Your task to perform on an android device: Open Chrome and go to settings Image 0: 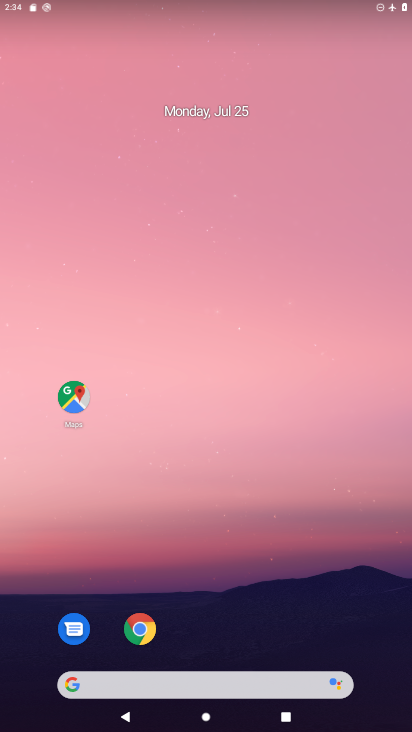
Step 0: drag from (287, 590) to (183, 0)
Your task to perform on an android device: Open Chrome and go to settings Image 1: 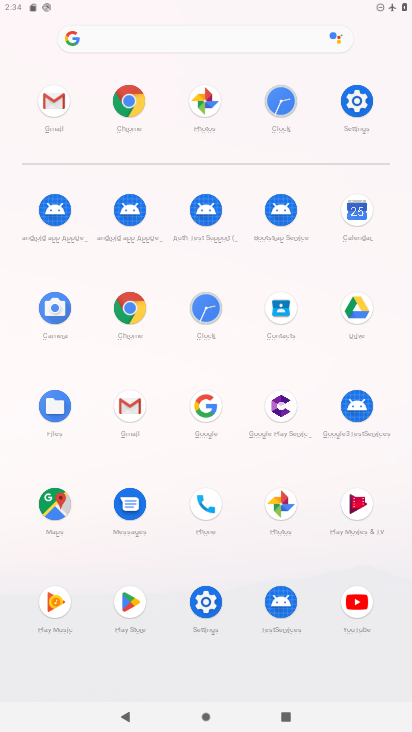
Step 1: click (128, 108)
Your task to perform on an android device: Open Chrome and go to settings Image 2: 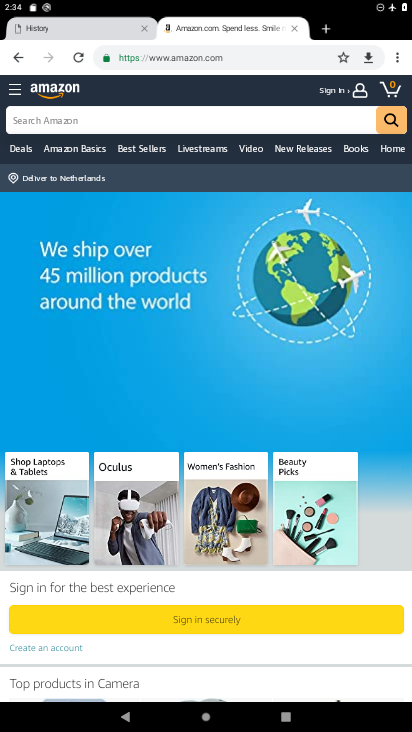
Step 2: task complete